Your task to perform on an android device: toggle data saver in the chrome app Image 0: 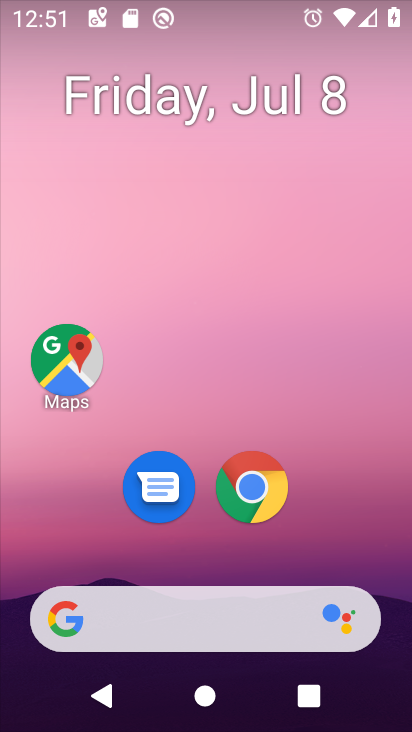
Step 0: drag from (359, 560) to (383, 99)
Your task to perform on an android device: toggle data saver in the chrome app Image 1: 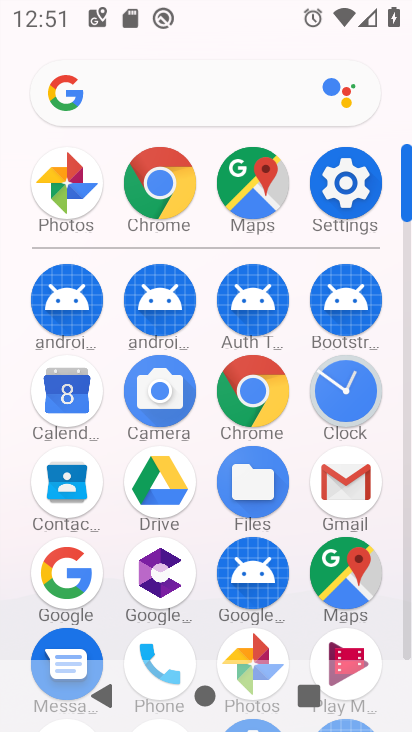
Step 1: click (255, 389)
Your task to perform on an android device: toggle data saver in the chrome app Image 2: 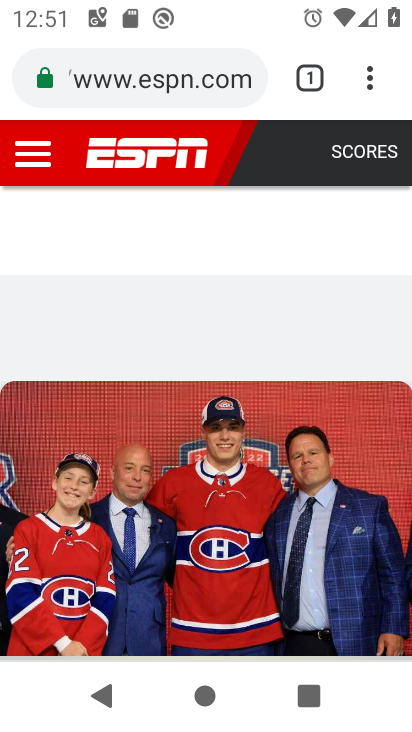
Step 2: click (372, 86)
Your task to perform on an android device: toggle data saver in the chrome app Image 3: 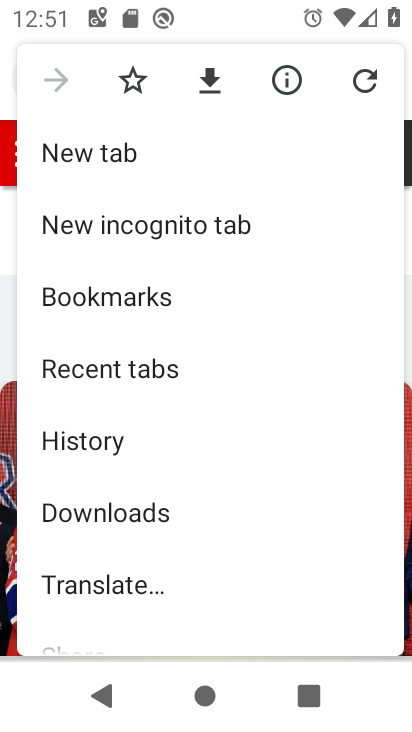
Step 3: drag from (310, 361) to (306, 285)
Your task to perform on an android device: toggle data saver in the chrome app Image 4: 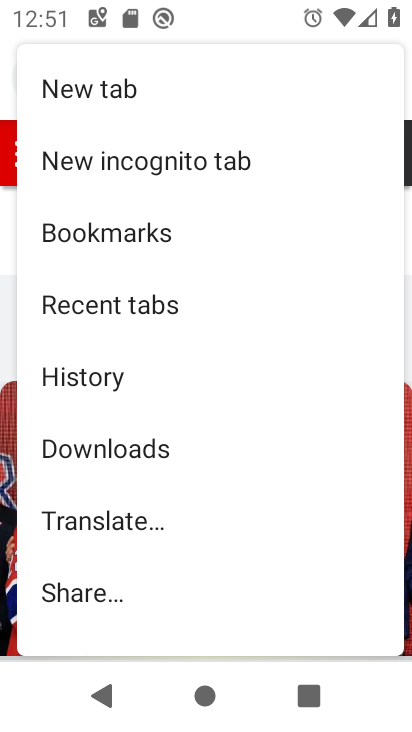
Step 4: drag from (318, 422) to (304, 319)
Your task to perform on an android device: toggle data saver in the chrome app Image 5: 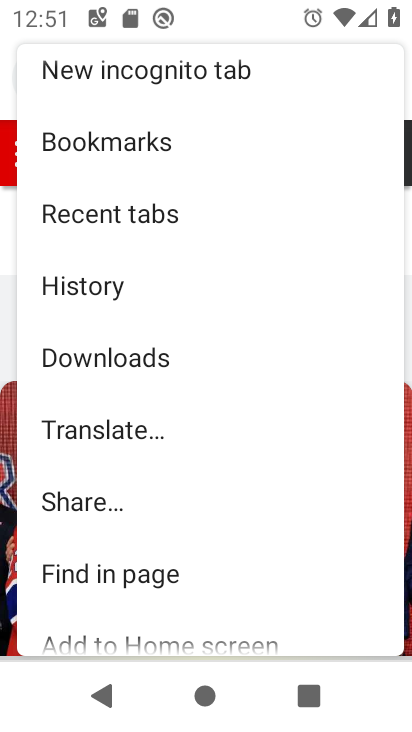
Step 5: drag from (304, 468) to (299, 378)
Your task to perform on an android device: toggle data saver in the chrome app Image 6: 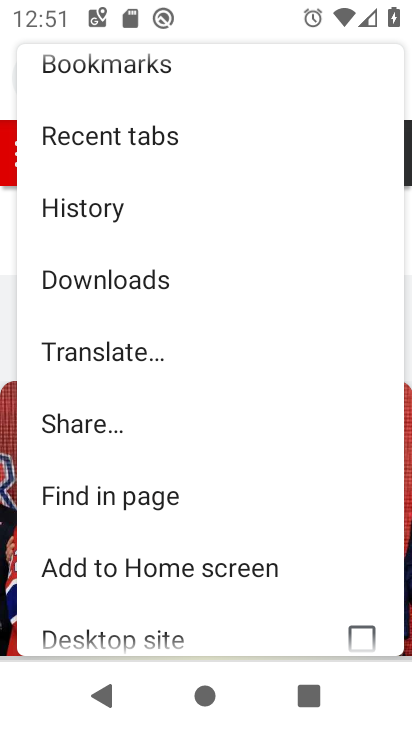
Step 6: drag from (326, 491) to (326, 353)
Your task to perform on an android device: toggle data saver in the chrome app Image 7: 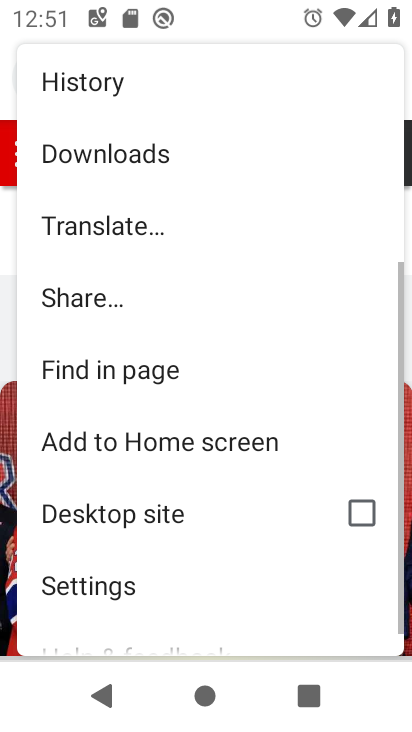
Step 7: drag from (271, 505) to (267, 404)
Your task to perform on an android device: toggle data saver in the chrome app Image 8: 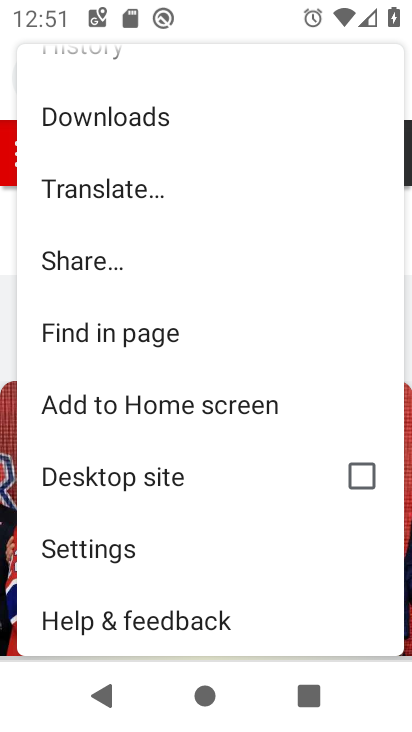
Step 8: click (168, 563)
Your task to perform on an android device: toggle data saver in the chrome app Image 9: 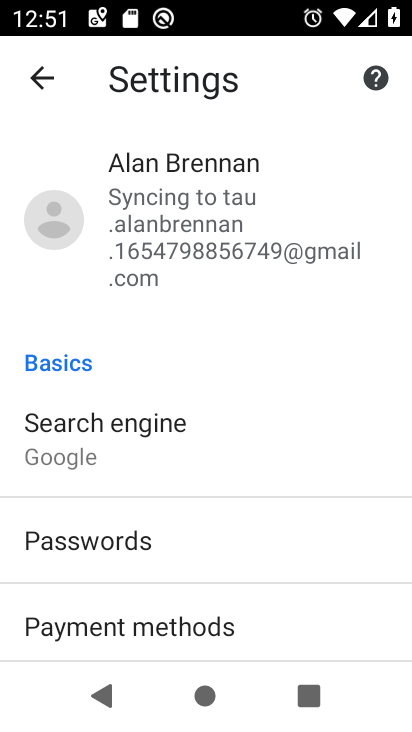
Step 9: drag from (351, 601) to (359, 465)
Your task to perform on an android device: toggle data saver in the chrome app Image 10: 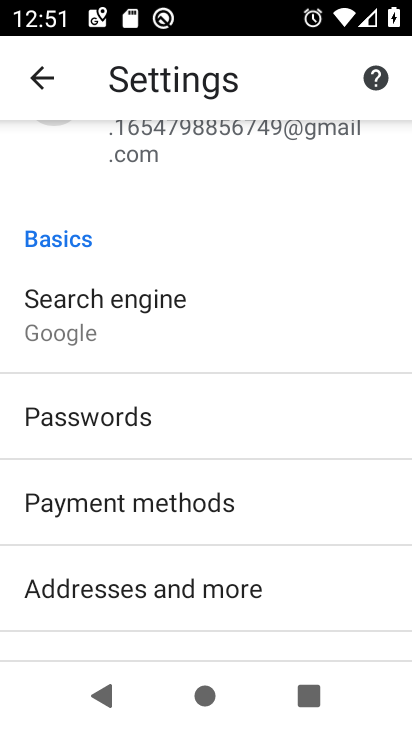
Step 10: drag from (347, 591) to (356, 434)
Your task to perform on an android device: toggle data saver in the chrome app Image 11: 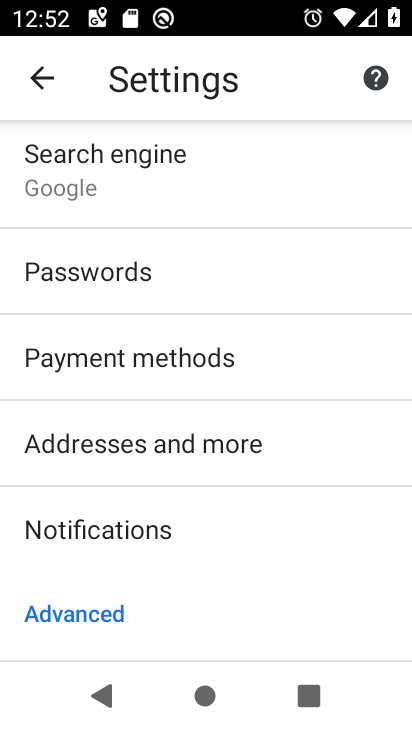
Step 11: drag from (325, 607) to (316, 438)
Your task to perform on an android device: toggle data saver in the chrome app Image 12: 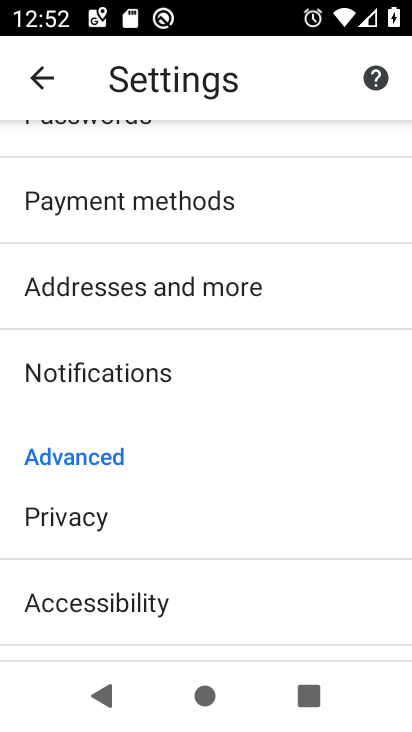
Step 12: drag from (319, 540) to (331, 422)
Your task to perform on an android device: toggle data saver in the chrome app Image 13: 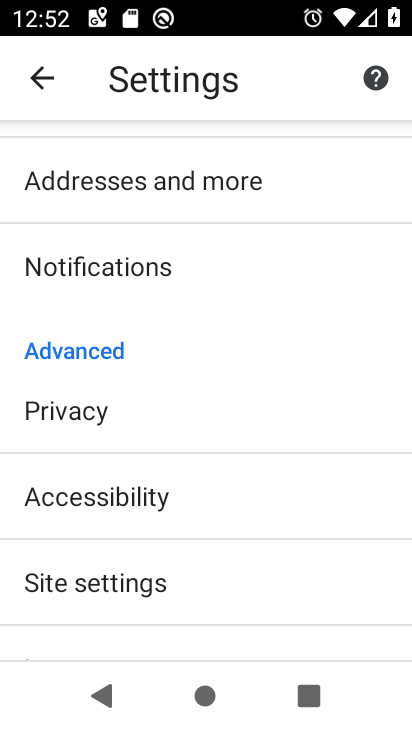
Step 13: drag from (332, 543) to (345, 422)
Your task to perform on an android device: toggle data saver in the chrome app Image 14: 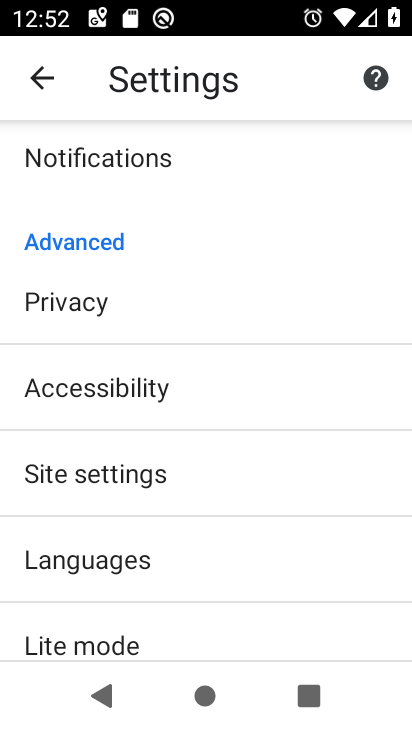
Step 14: drag from (317, 549) to (322, 442)
Your task to perform on an android device: toggle data saver in the chrome app Image 15: 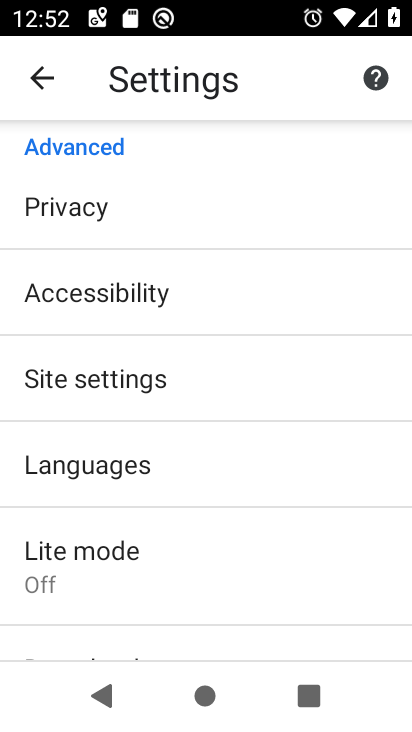
Step 15: drag from (326, 569) to (320, 445)
Your task to perform on an android device: toggle data saver in the chrome app Image 16: 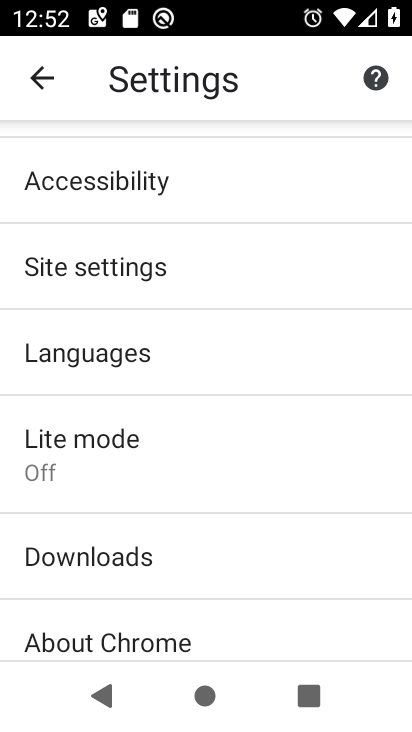
Step 16: click (224, 456)
Your task to perform on an android device: toggle data saver in the chrome app Image 17: 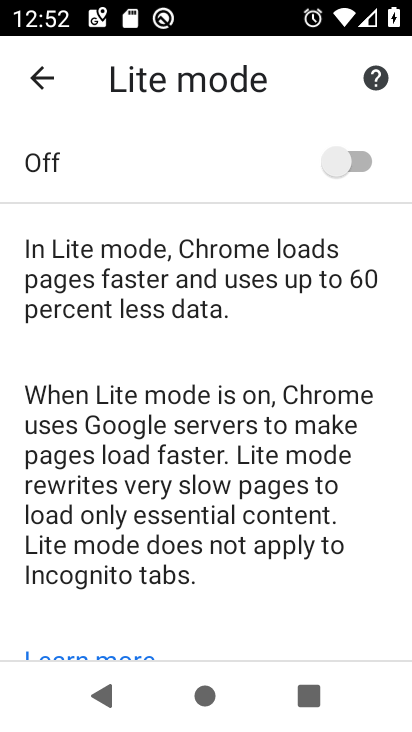
Step 17: click (353, 162)
Your task to perform on an android device: toggle data saver in the chrome app Image 18: 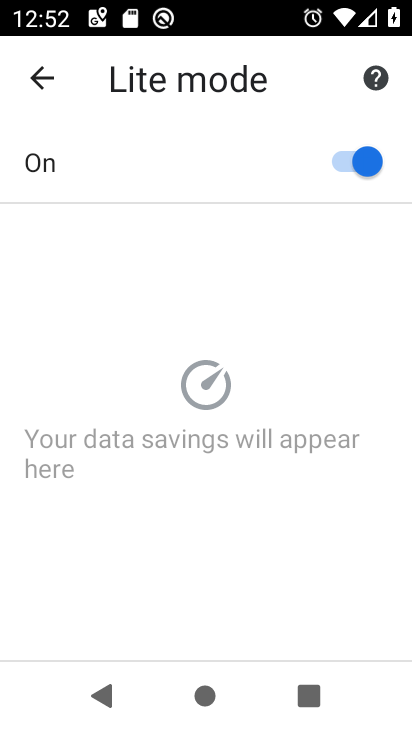
Step 18: task complete